Your task to perform on an android device: set the timer Image 0: 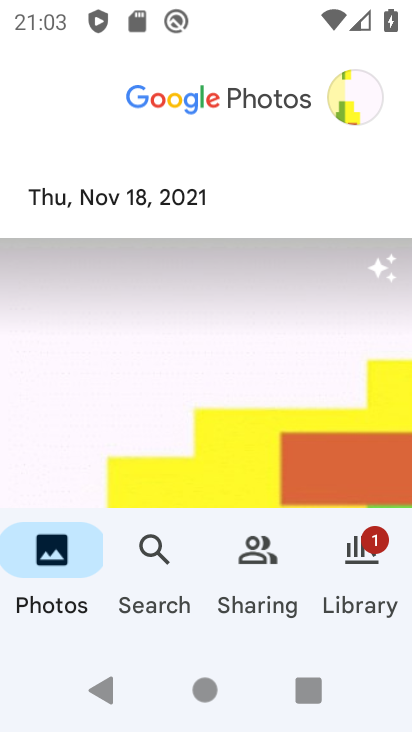
Step 0: press home button
Your task to perform on an android device: set the timer Image 1: 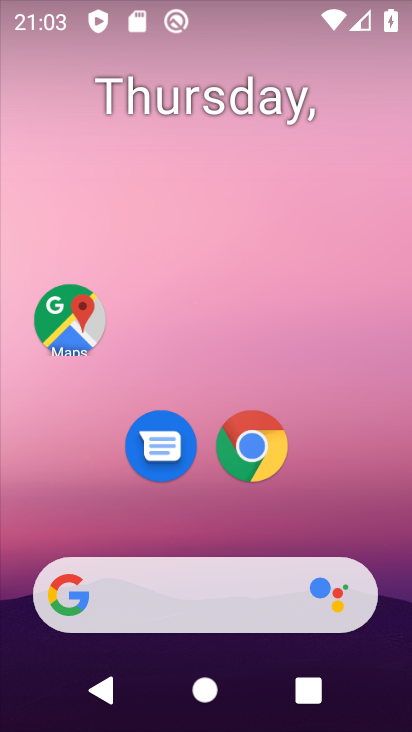
Step 1: drag from (393, 610) to (292, 176)
Your task to perform on an android device: set the timer Image 2: 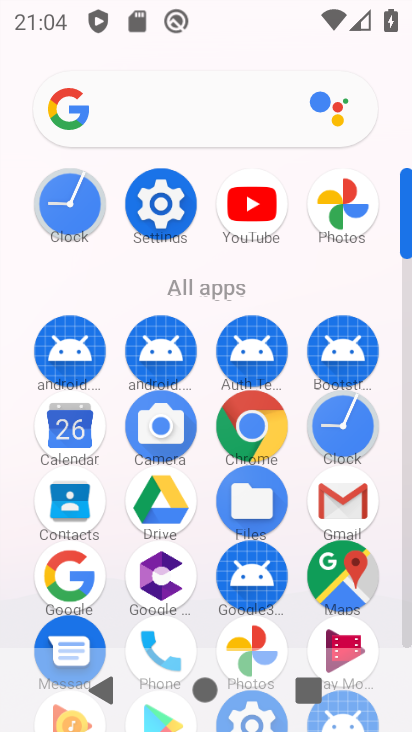
Step 2: click (403, 645)
Your task to perform on an android device: set the timer Image 3: 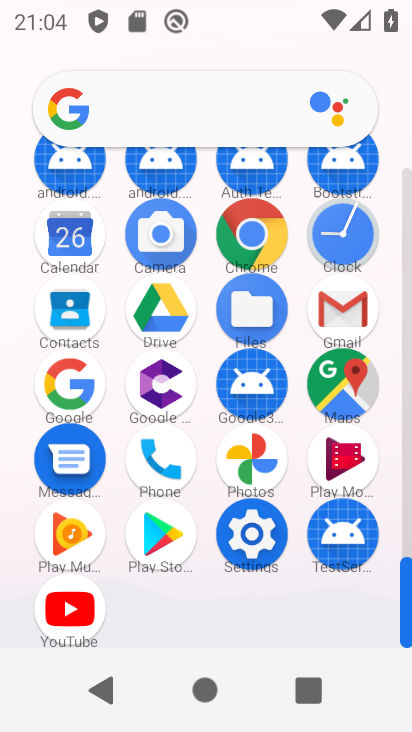
Step 3: click (339, 235)
Your task to perform on an android device: set the timer Image 4: 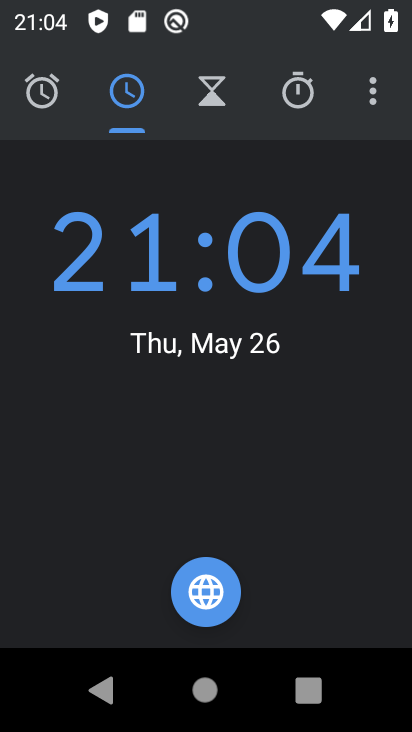
Step 4: drag from (339, 235) to (0, 312)
Your task to perform on an android device: set the timer Image 5: 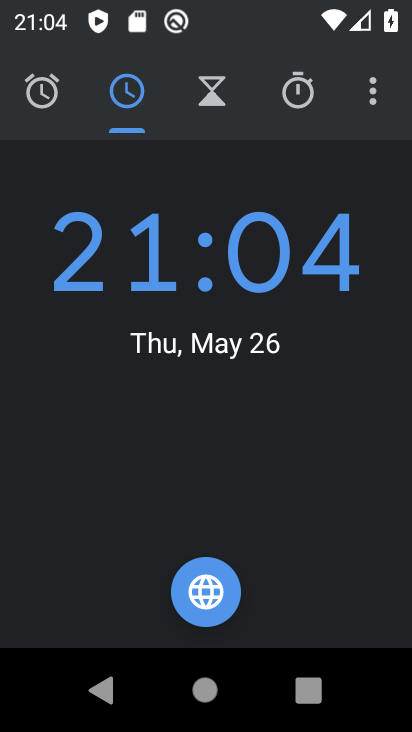
Step 5: click (384, 83)
Your task to perform on an android device: set the timer Image 6: 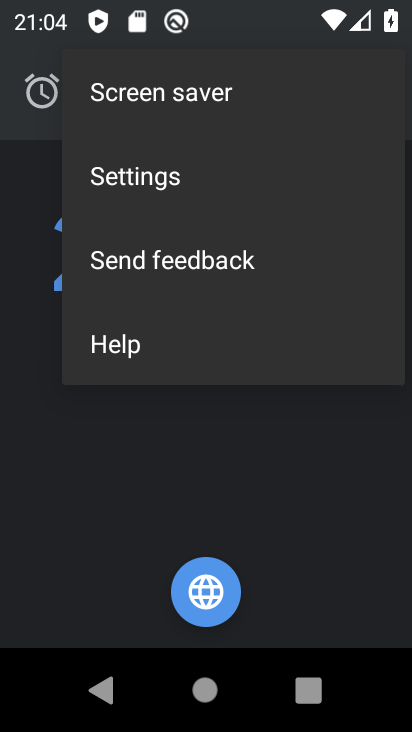
Step 6: click (151, 166)
Your task to perform on an android device: set the timer Image 7: 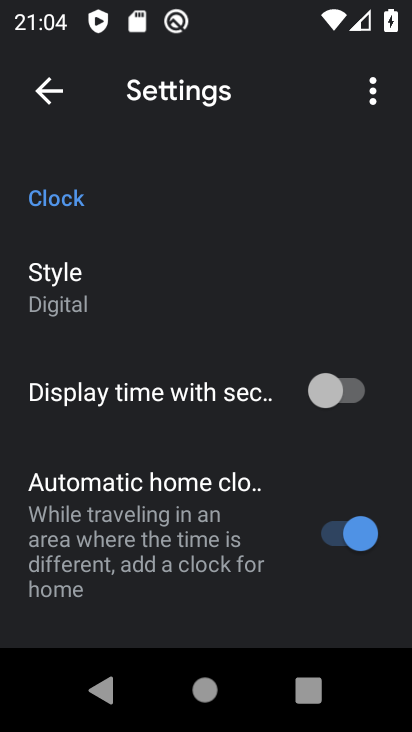
Step 7: click (36, 92)
Your task to perform on an android device: set the timer Image 8: 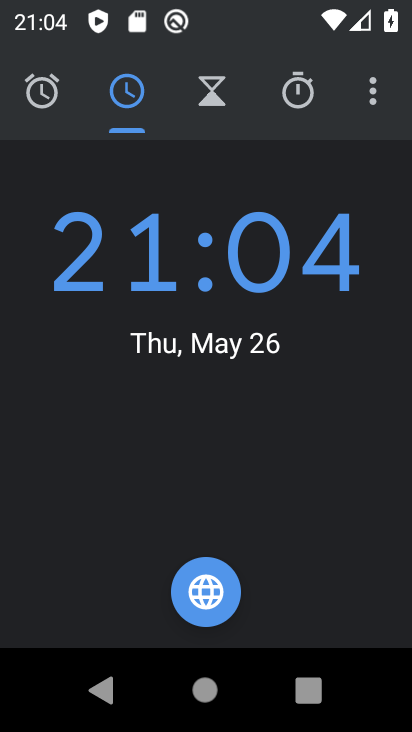
Step 8: click (205, 97)
Your task to perform on an android device: set the timer Image 9: 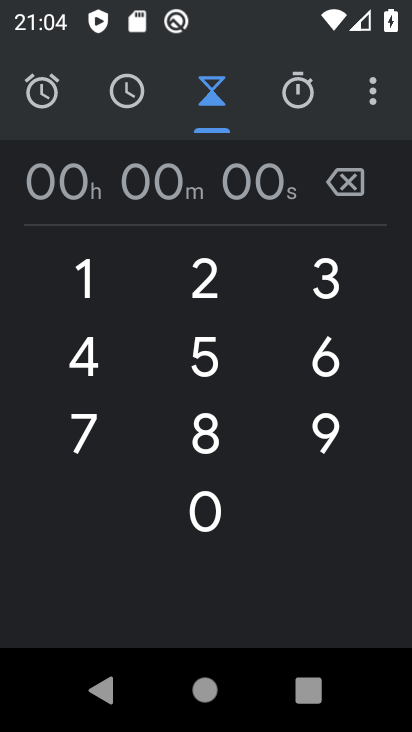
Step 9: click (182, 447)
Your task to perform on an android device: set the timer Image 10: 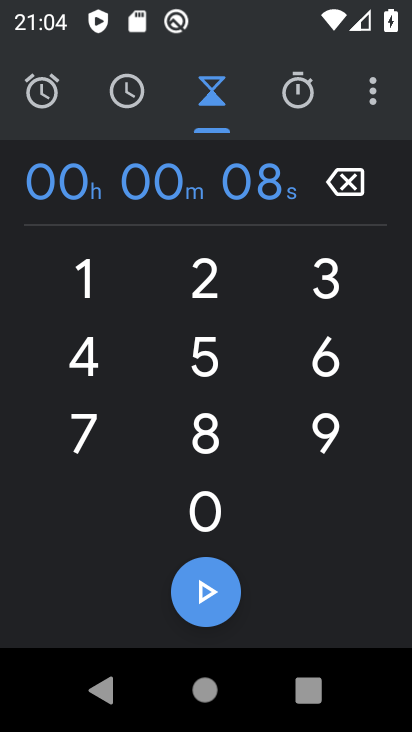
Step 10: click (209, 597)
Your task to perform on an android device: set the timer Image 11: 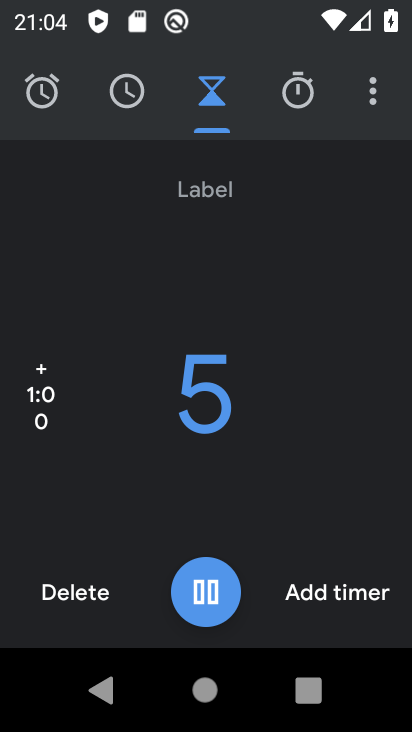
Step 11: task complete